Your task to perform on an android device: add a contact in the contacts app Image 0: 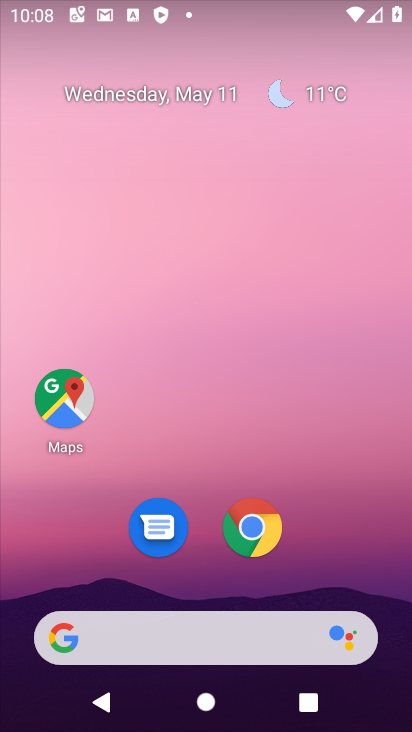
Step 0: drag from (328, 504) to (301, 46)
Your task to perform on an android device: add a contact in the contacts app Image 1: 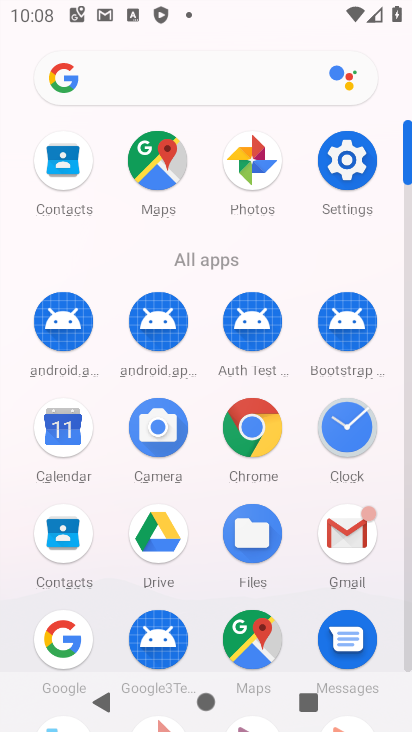
Step 1: click (64, 527)
Your task to perform on an android device: add a contact in the contacts app Image 2: 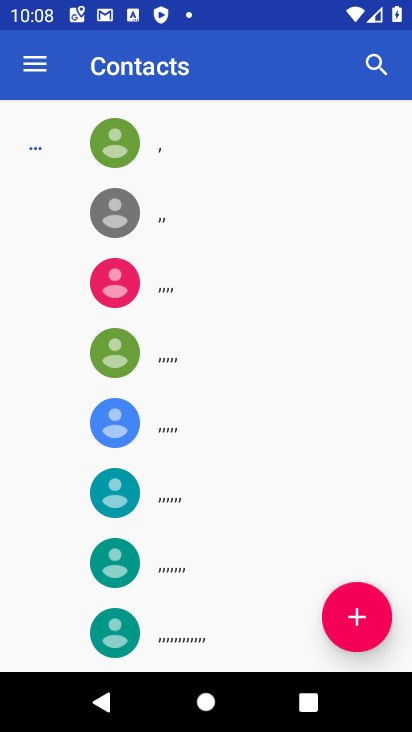
Step 2: click (363, 636)
Your task to perform on an android device: add a contact in the contacts app Image 3: 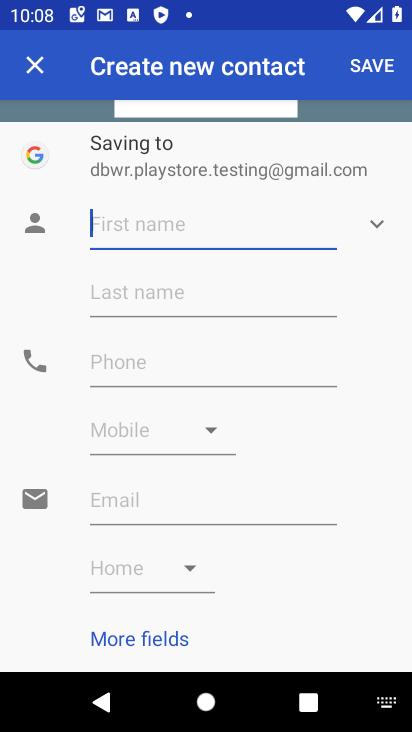
Step 3: type "tyu"
Your task to perform on an android device: add a contact in the contacts app Image 4: 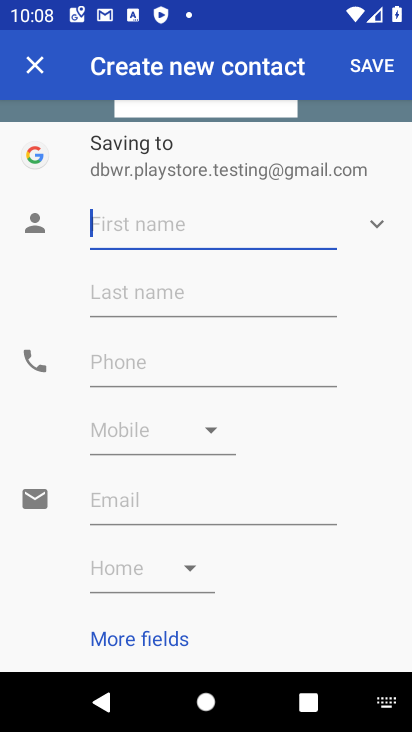
Step 4: click (151, 375)
Your task to perform on an android device: add a contact in the contacts app Image 5: 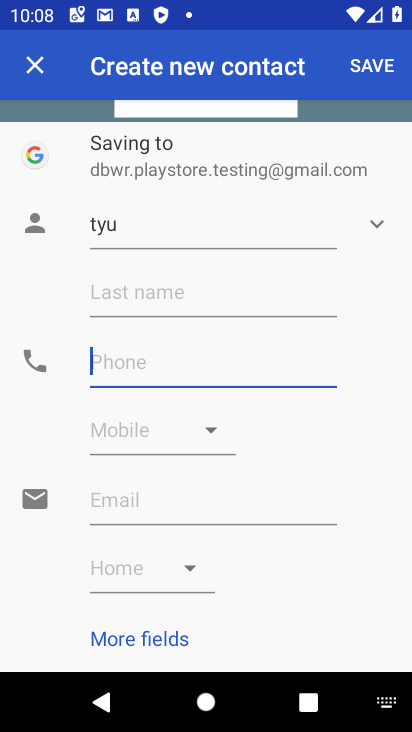
Step 5: type "4645454546"
Your task to perform on an android device: add a contact in the contacts app Image 6: 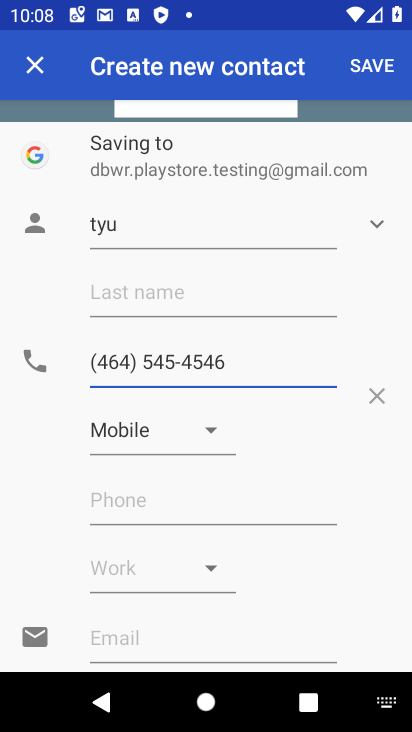
Step 6: click (376, 66)
Your task to perform on an android device: add a contact in the contacts app Image 7: 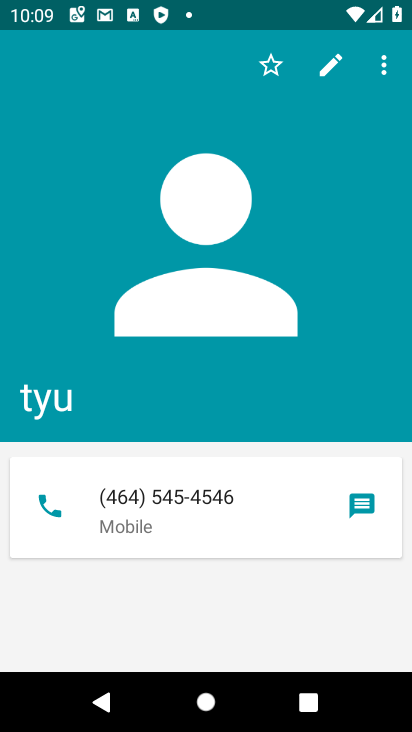
Step 7: task complete